Your task to perform on an android device: delete browsing data in the chrome app Image 0: 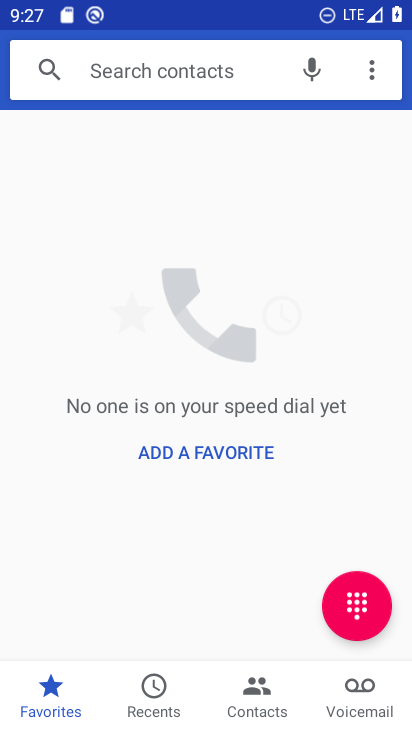
Step 0: press home button
Your task to perform on an android device: delete browsing data in the chrome app Image 1: 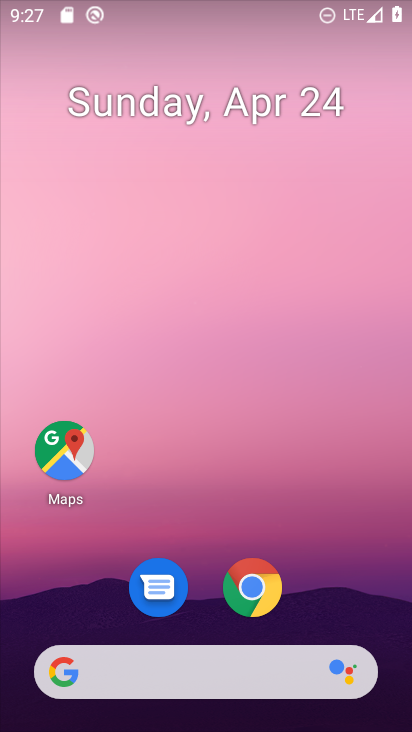
Step 1: drag from (369, 567) to (332, 150)
Your task to perform on an android device: delete browsing data in the chrome app Image 2: 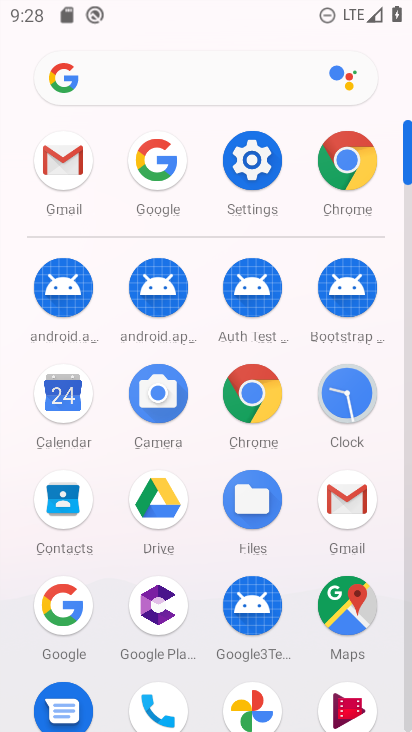
Step 2: click (252, 401)
Your task to perform on an android device: delete browsing data in the chrome app Image 3: 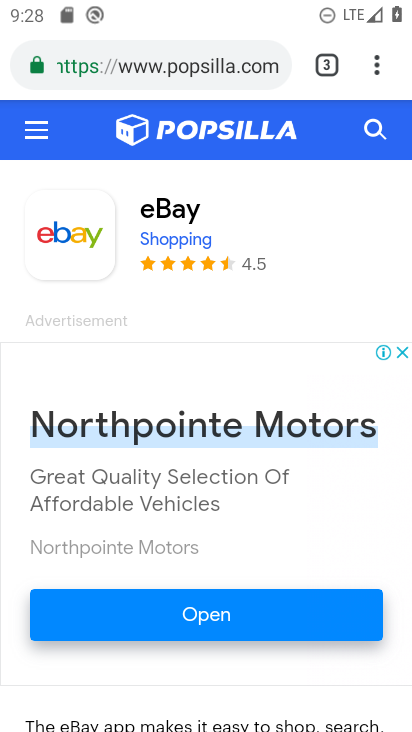
Step 3: drag from (377, 69) to (154, 428)
Your task to perform on an android device: delete browsing data in the chrome app Image 4: 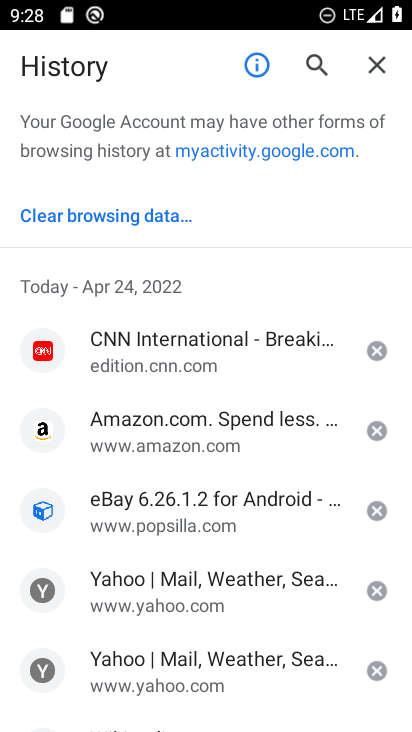
Step 4: click (132, 216)
Your task to perform on an android device: delete browsing data in the chrome app Image 5: 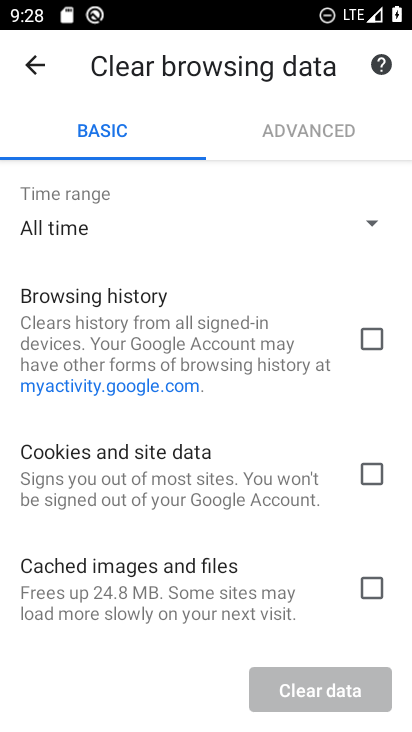
Step 5: click (379, 343)
Your task to perform on an android device: delete browsing data in the chrome app Image 6: 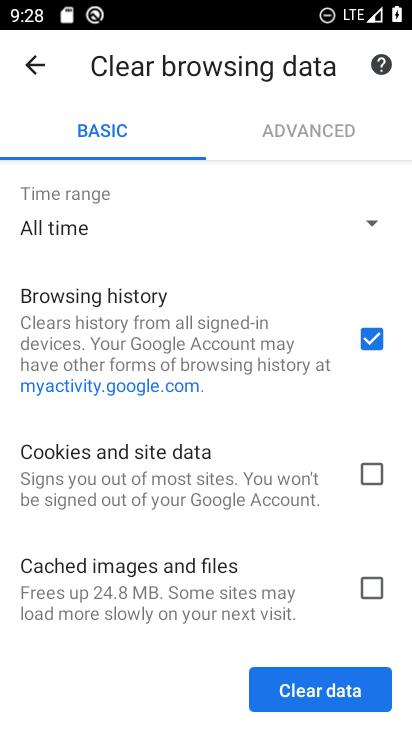
Step 6: click (286, 685)
Your task to perform on an android device: delete browsing data in the chrome app Image 7: 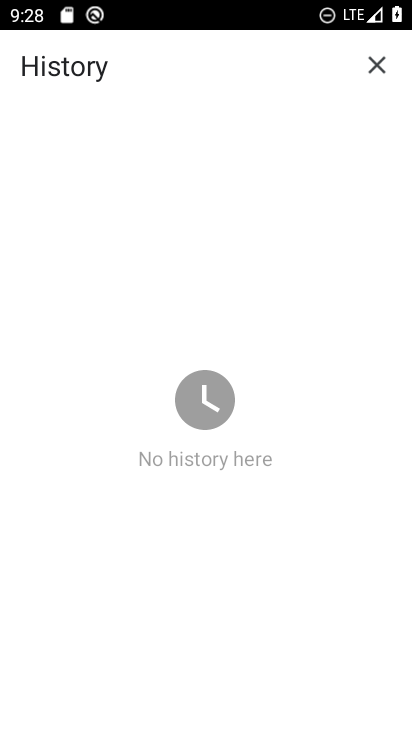
Step 7: task complete